Your task to perform on an android device: Open Amazon Image 0: 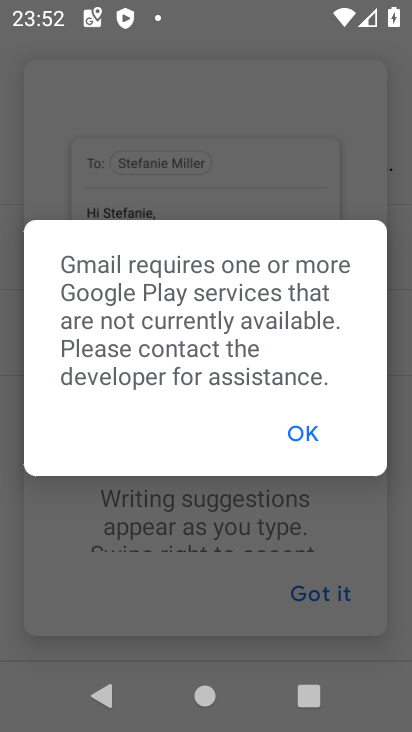
Step 0: press home button
Your task to perform on an android device: Open Amazon Image 1: 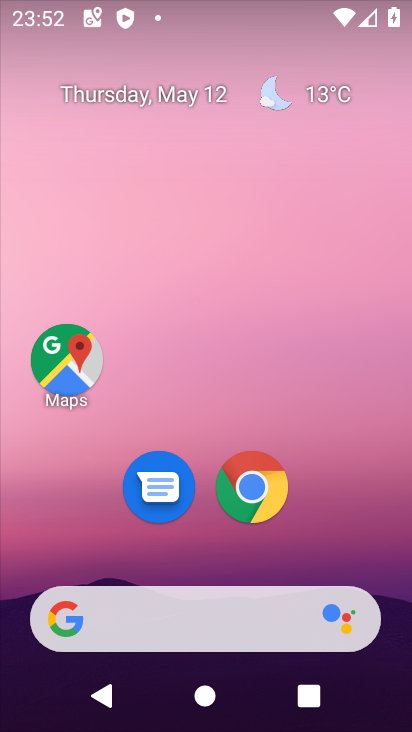
Step 1: click (269, 488)
Your task to perform on an android device: Open Amazon Image 2: 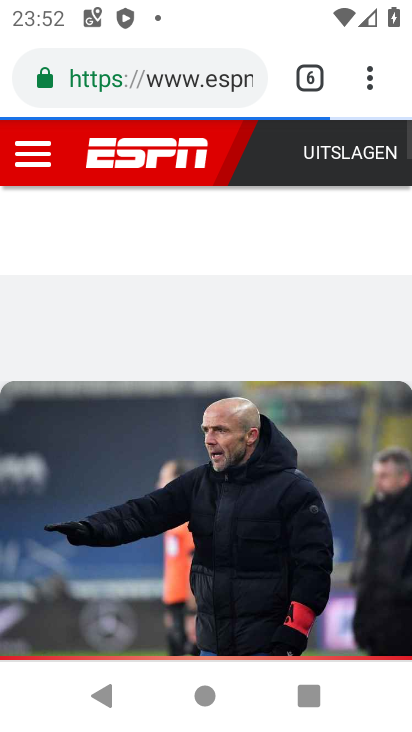
Step 2: click (296, 80)
Your task to perform on an android device: Open Amazon Image 3: 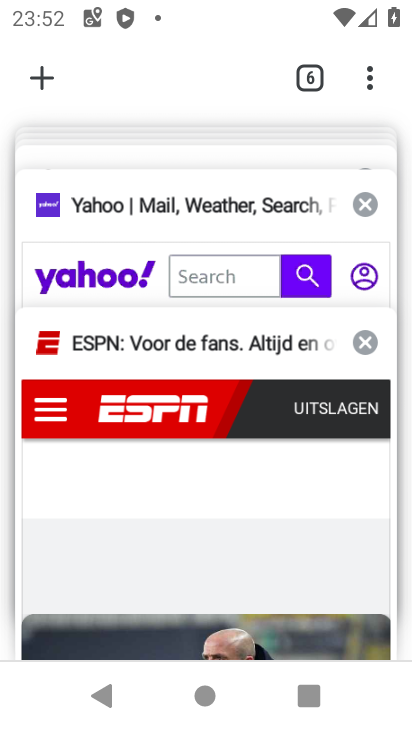
Step 3: click (41, 65)
Your task to perform on an android device: Open Amazon Image 4: 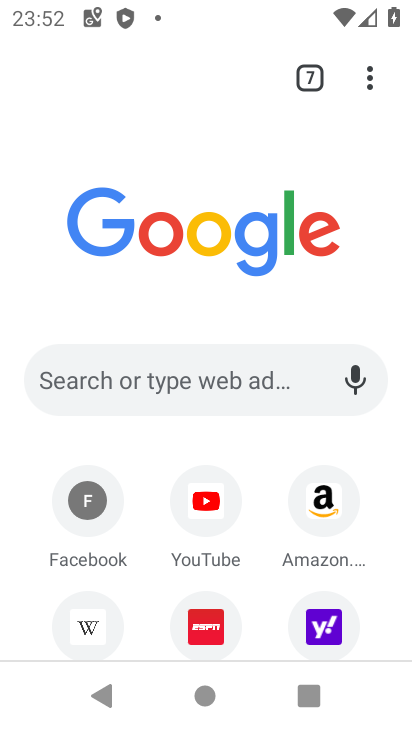
Step 4: click (342, 511)
Your task to perform on an android device: Open Amazon Image 5: 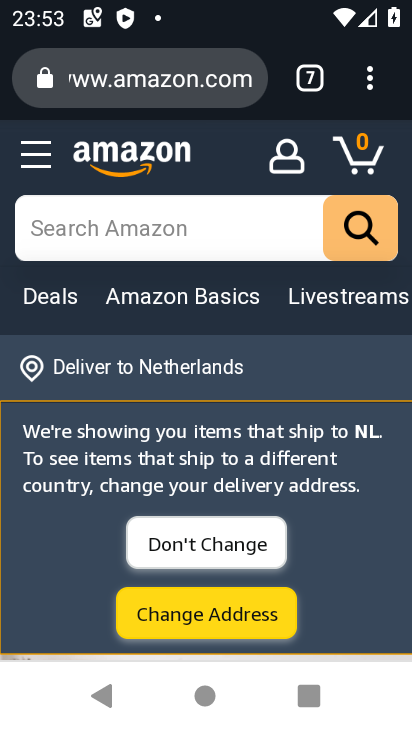
Step 5: task complete